Your task to perform on an android device: Search for seafood restaurants on Google Maps Image 0: 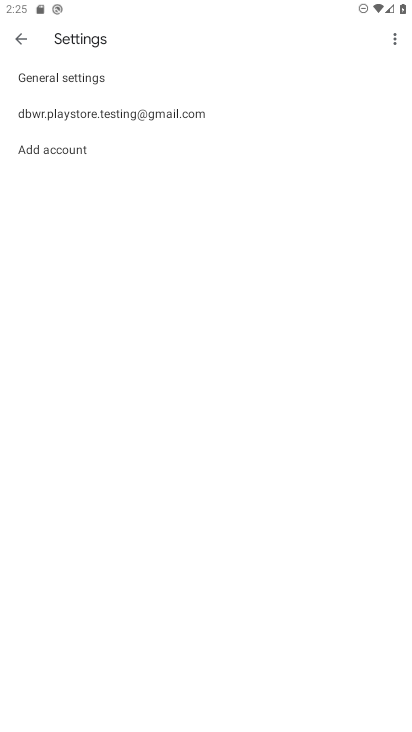
Step 0: press home button
Your task to perform on an android device: Search for seafood restaurants on Google Maps Image 1: 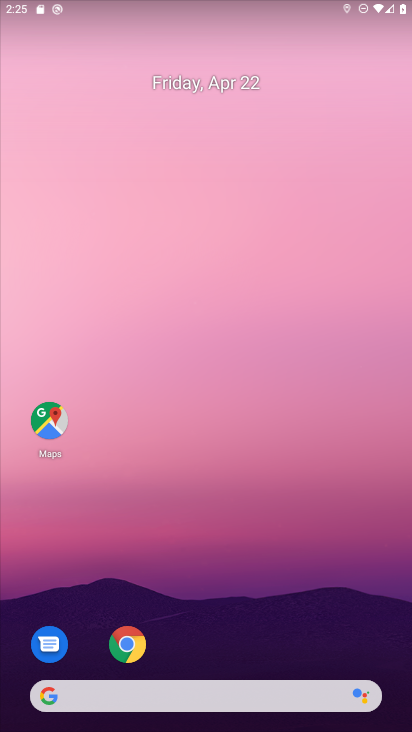
Step 1: drag from (268, 618) to (242, 109)
Your task to perform on an android device: Search for seafood restaurants on Google Maps Image 2: 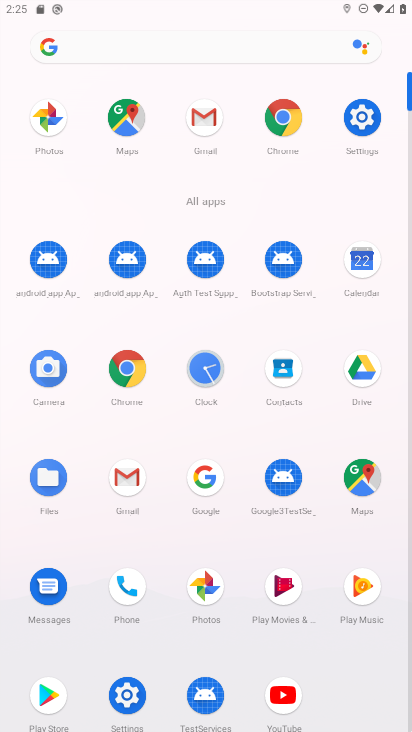
Step 2: click (367, 482)
Your task to perform on an android device: Search for seafood restaurants on Google Maps Image 3: 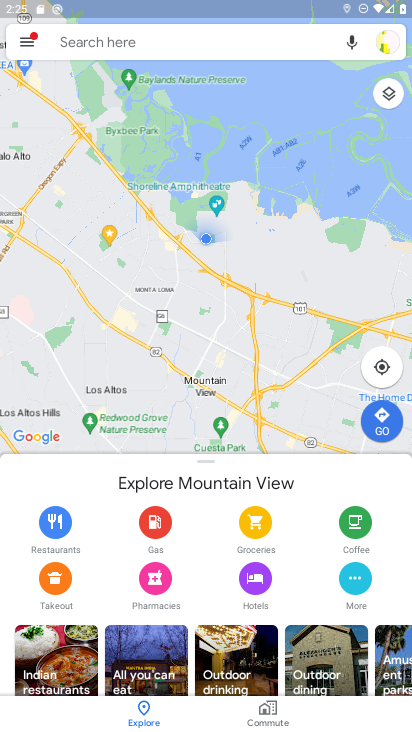
Step 3: click (213, 41)
Your task to perform on an android device: Search for seafood restaurants on Google Maps Image 4: 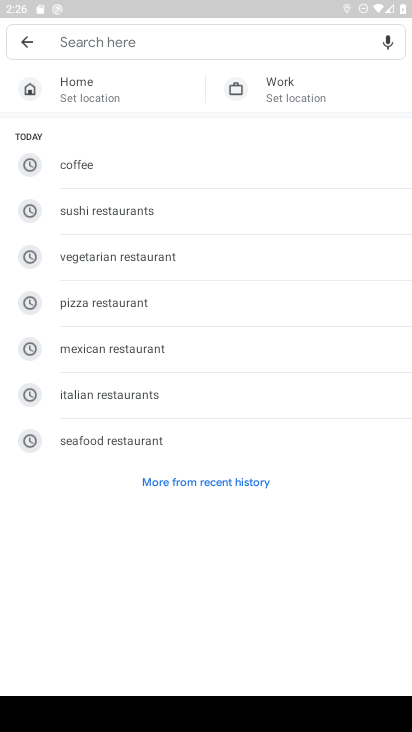
Step 4: type "seafood restaurants"
Your task to perform on an android device: Search for seafood restaurants on Google Maps Image 5: 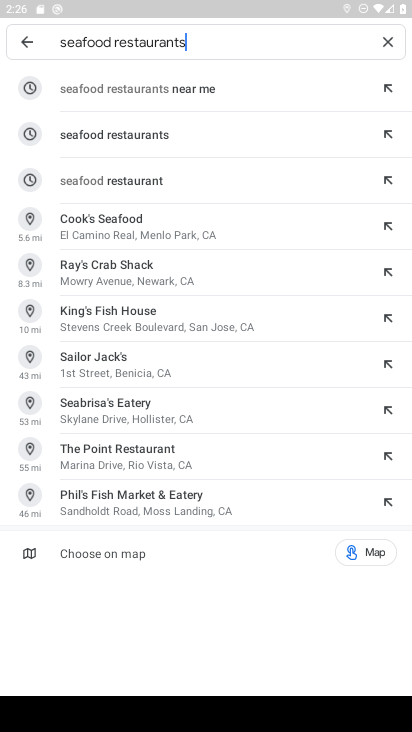
Step 5: click (202, 139)
Your task to perform on an android device: Search for seafood restaurants on Google Maps Image 6: 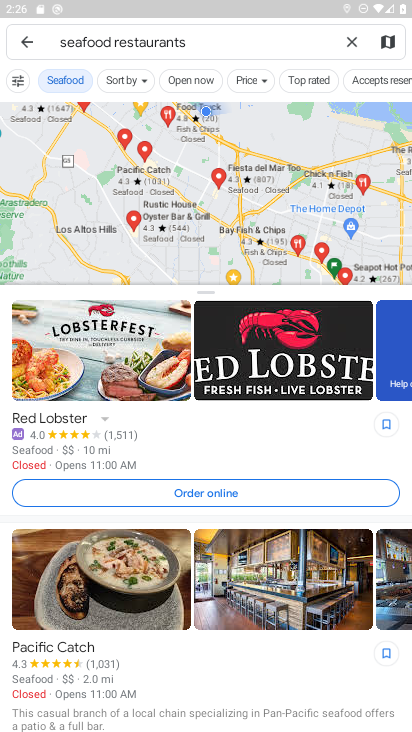
Step 6: task complete